Your task to perform on an android device: Empty the shopping cart on amazon. Search for razer naga on amazon, select the first entry, and add it to the cart. Image 0: 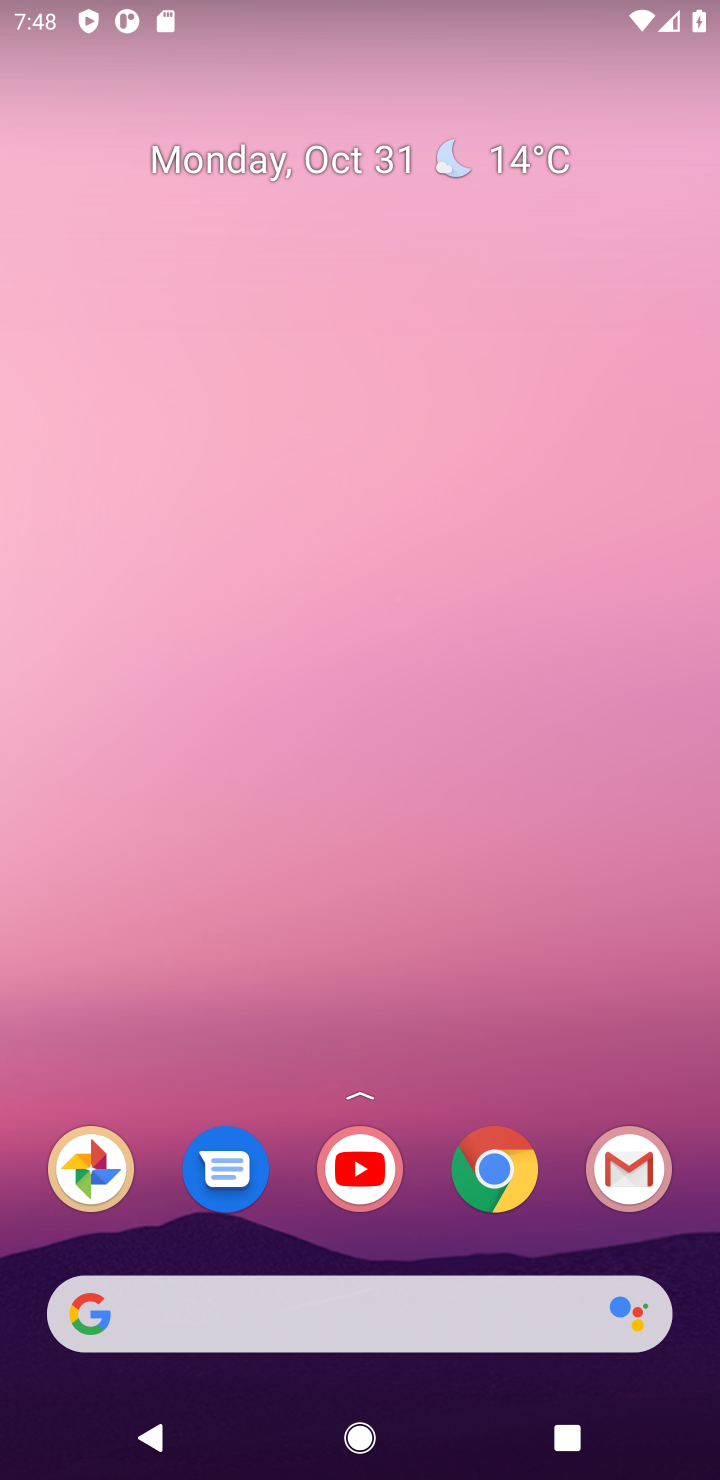
Step 0: drag from (189, 1180) to (217, 251)
Your task to perform on an android device: Empty the shopping cart on amazon. Search for razer naga on amazon, select the first entry, and add it to the cart. Image 1: 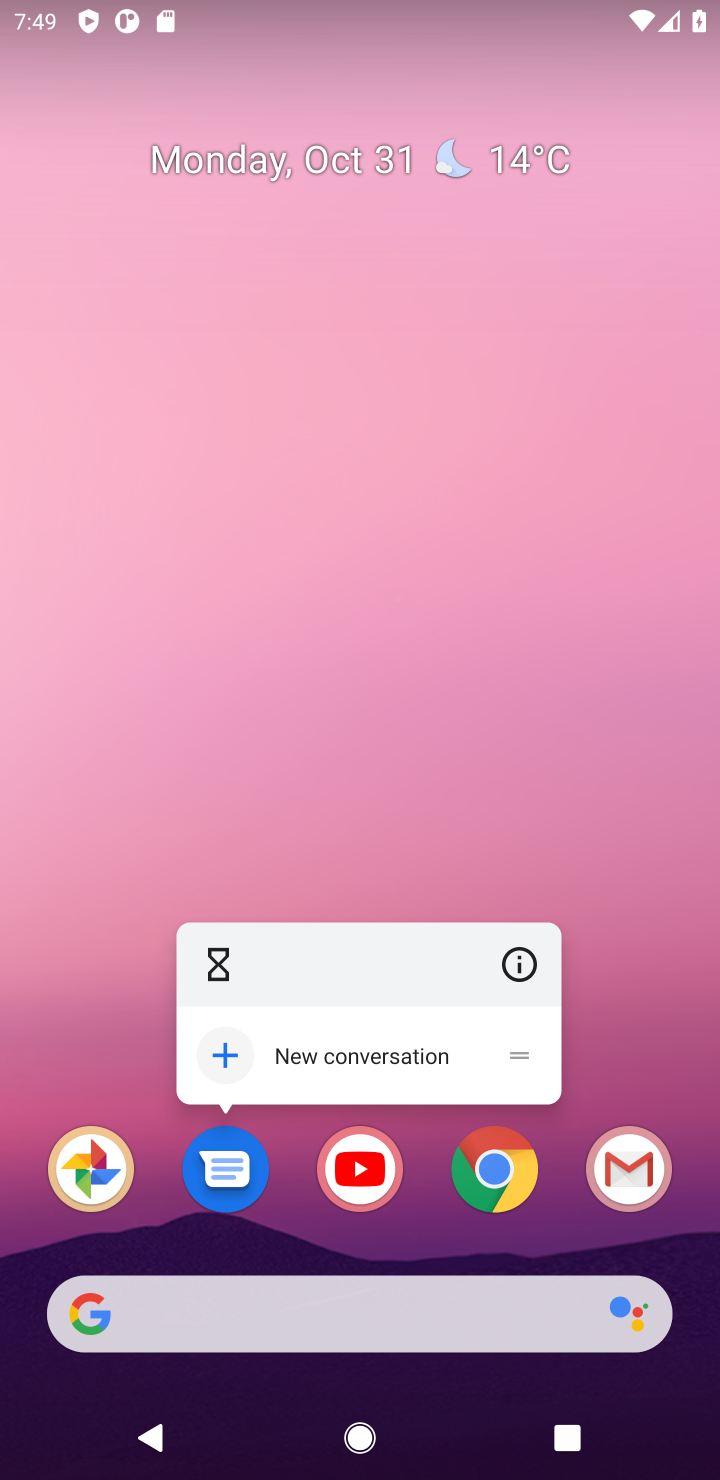
Step 1: click (419, 729)
Your task to perform on an android device: Empty the shopping cart on amazon. Search for razer naga on amazon, select the first entry, and add it to the cart. Image 2: 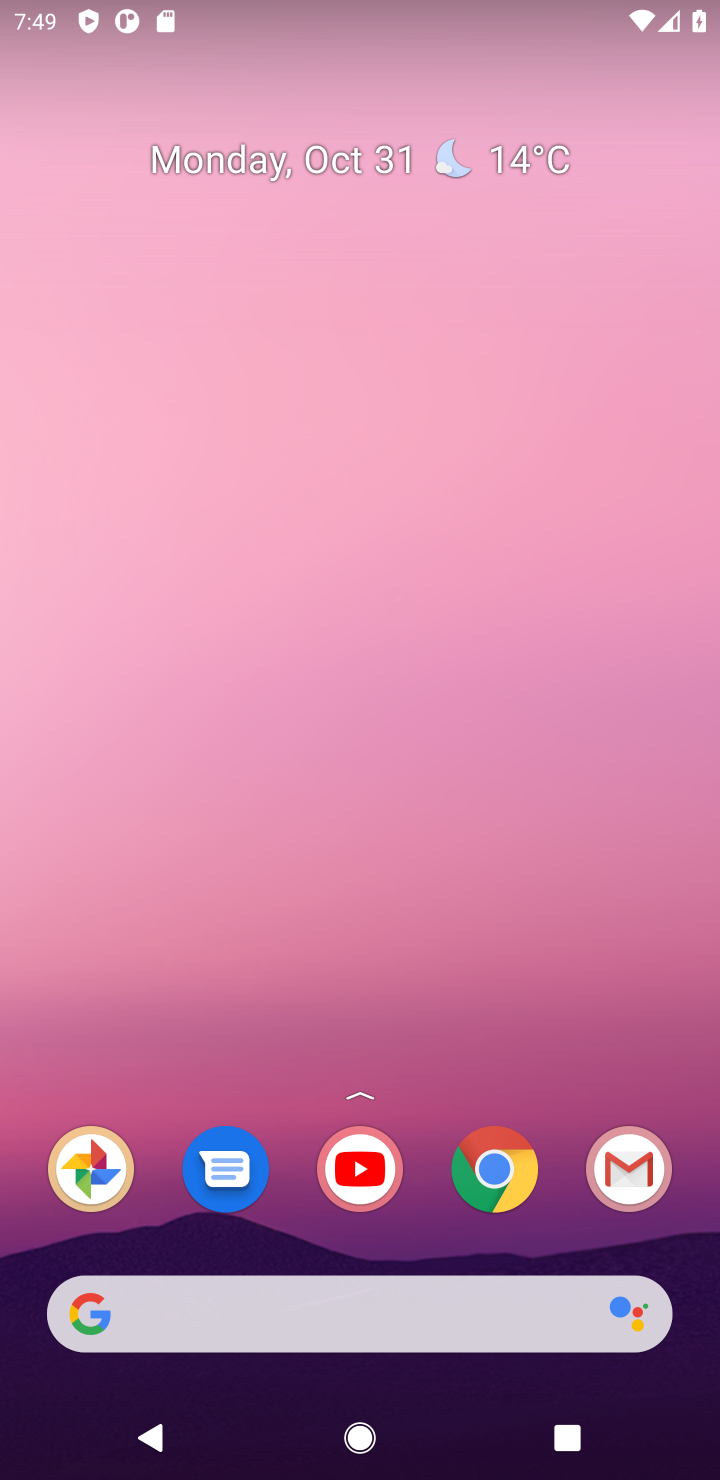
Step 2: drag from (366, 1320) to (419, 329)
Your task to perform on an android device: Empty the shopping cart on amazon. Search for razer naga on amazon, select the first entry, and add it to the cart. Image 3: 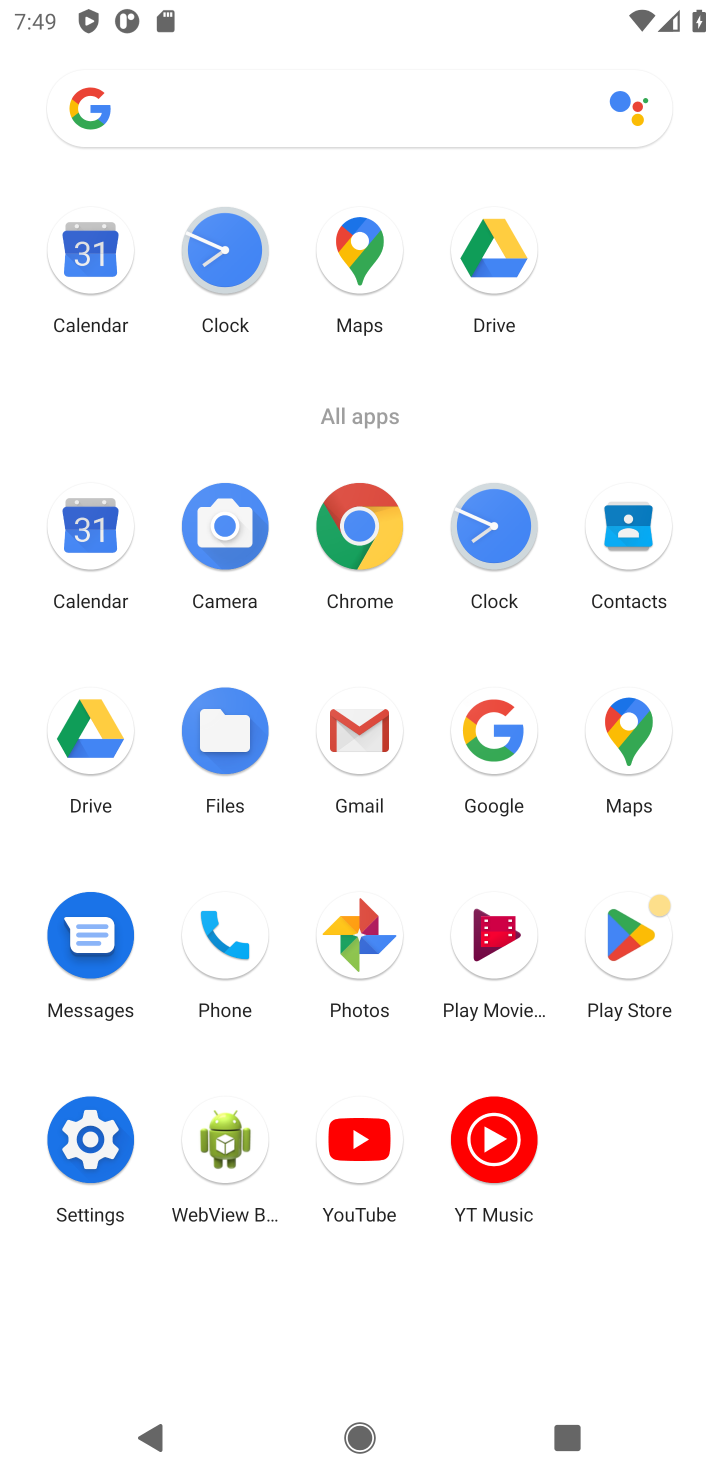
Step 3: click (480, 711)
Your task to perform on an android device: Empty the shopping cart on amazon. Search for razer naga on amazon, select the first entry, and add it to the cart. Image 4: 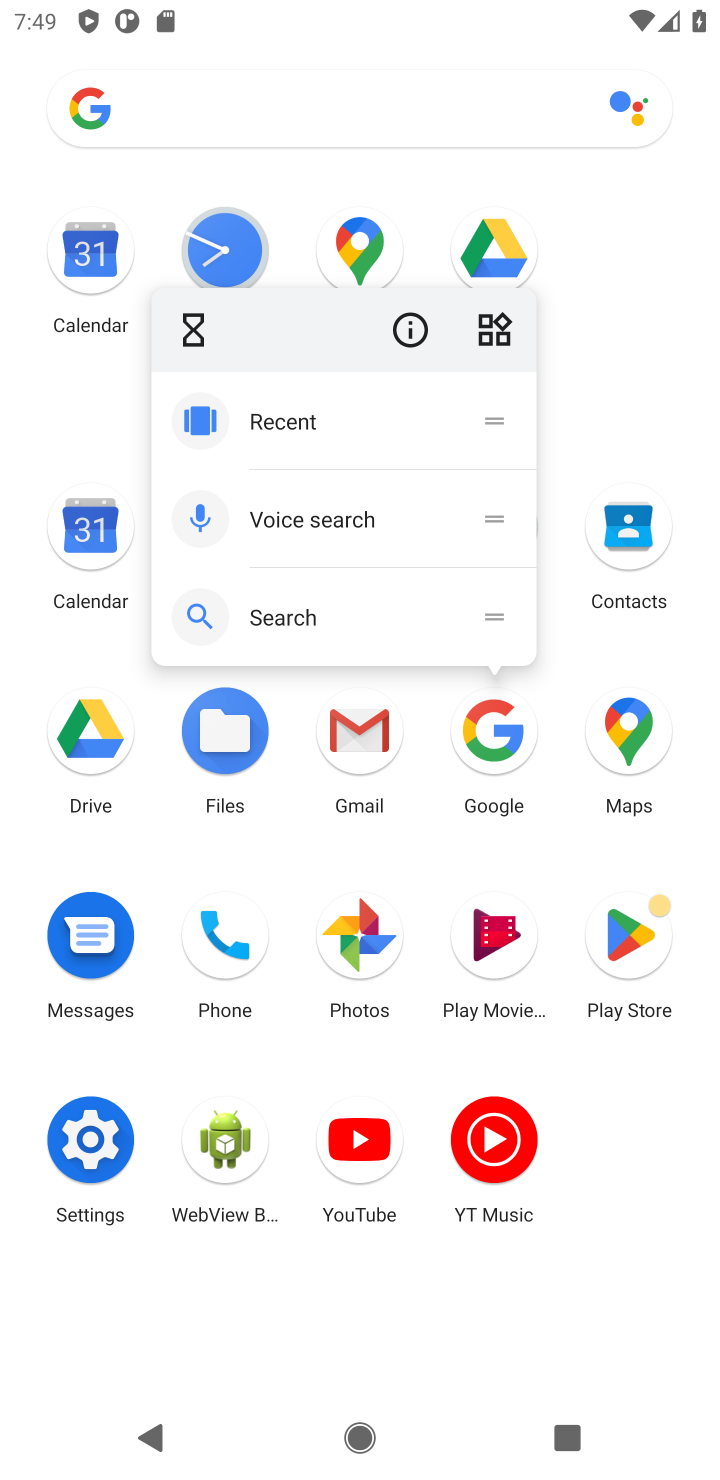
Step 4: click (504, 736)
Your task to perform on an android device: Empty the shopping cart on amazon. Search for razer naga on amazon, select the first entry, and add it to the cart. Image 5: 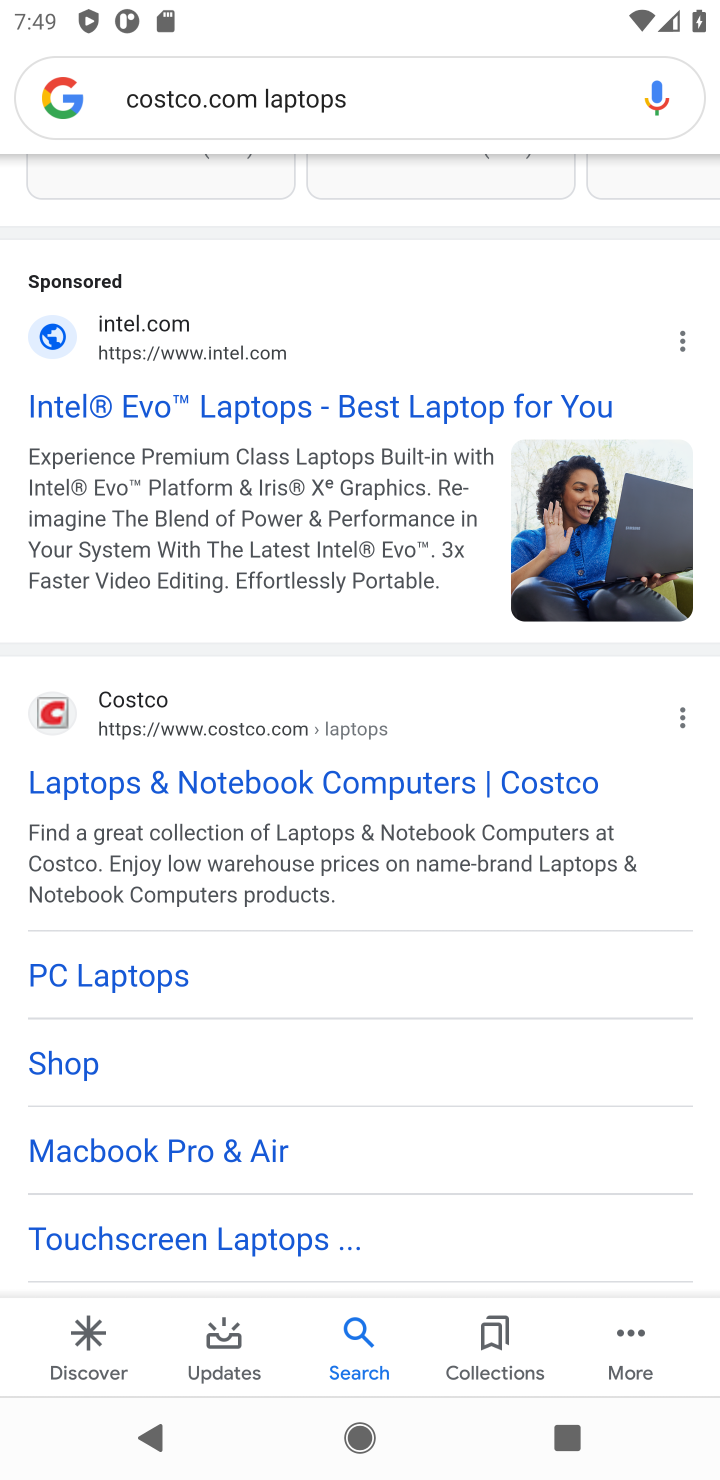
Step 5: click (354, 104)
Your task to perform on an android device: Empty the shopping cart on amazon. Search for razer naga on amazon, select the first entry, and add it to the cart. Image 6: 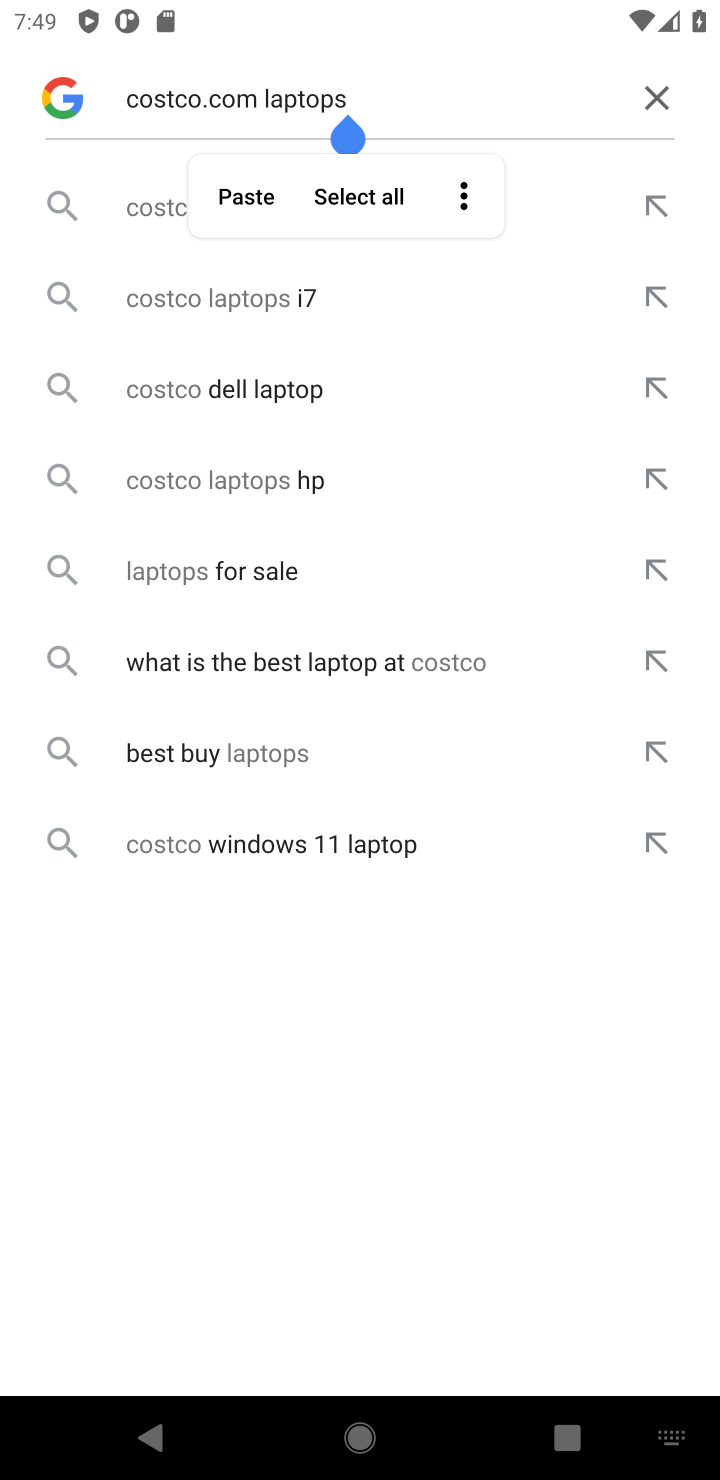
Step 6: click (664, 86)
Your task to perform on an android device: Empty the shopping cart on amazon. Search for razer naga on amazon, select the first entry, and add it to the cart. Image 7: 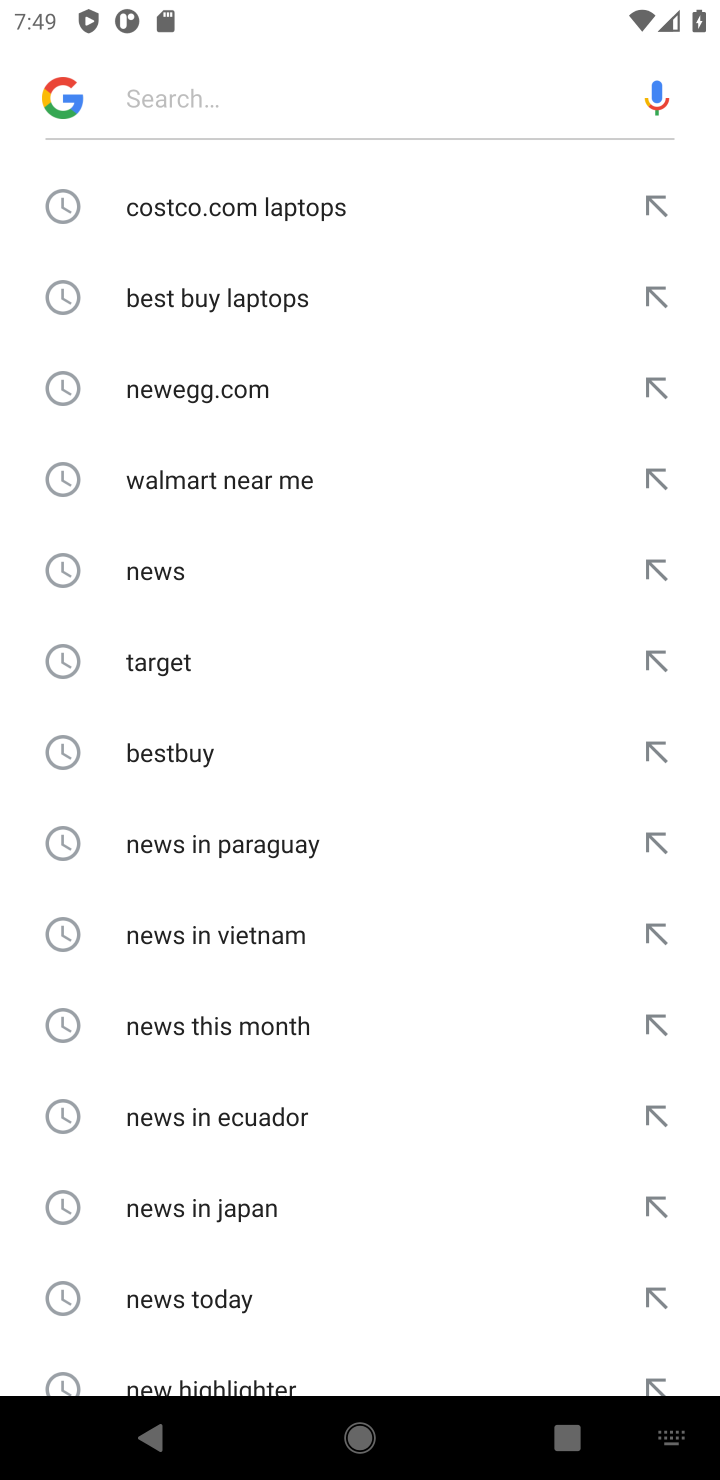
Step 7: click (141, 70)
Your task to perform on an android device: Empty the shopping cart on amazon. Search for razer naga on amazon, select the first entry, and add it to the cart. Image 8: 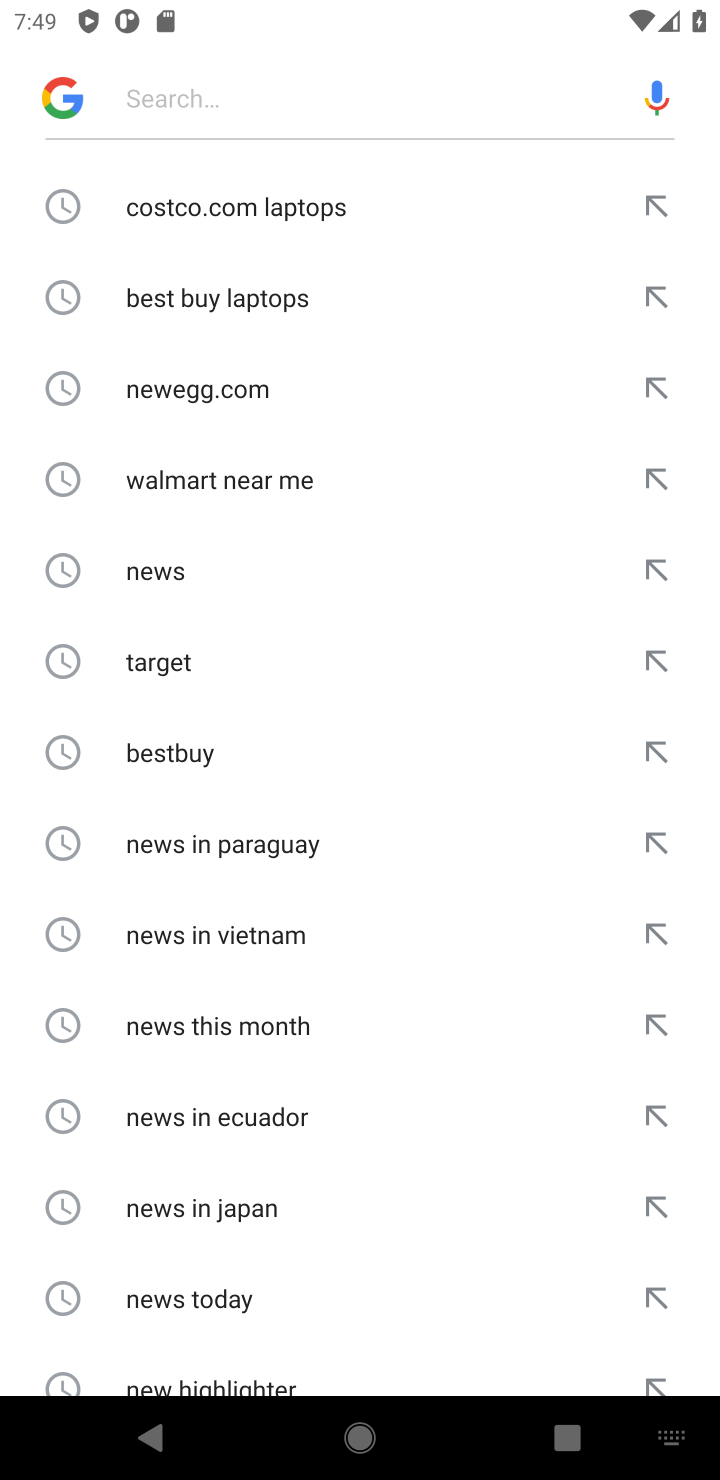
Step 8: type "amazon "
Your task to perform on an android device: Empty the shopping cart on amazon. Search for razer naga on amazon, select the first entry, and add it to the cart. Image 9: 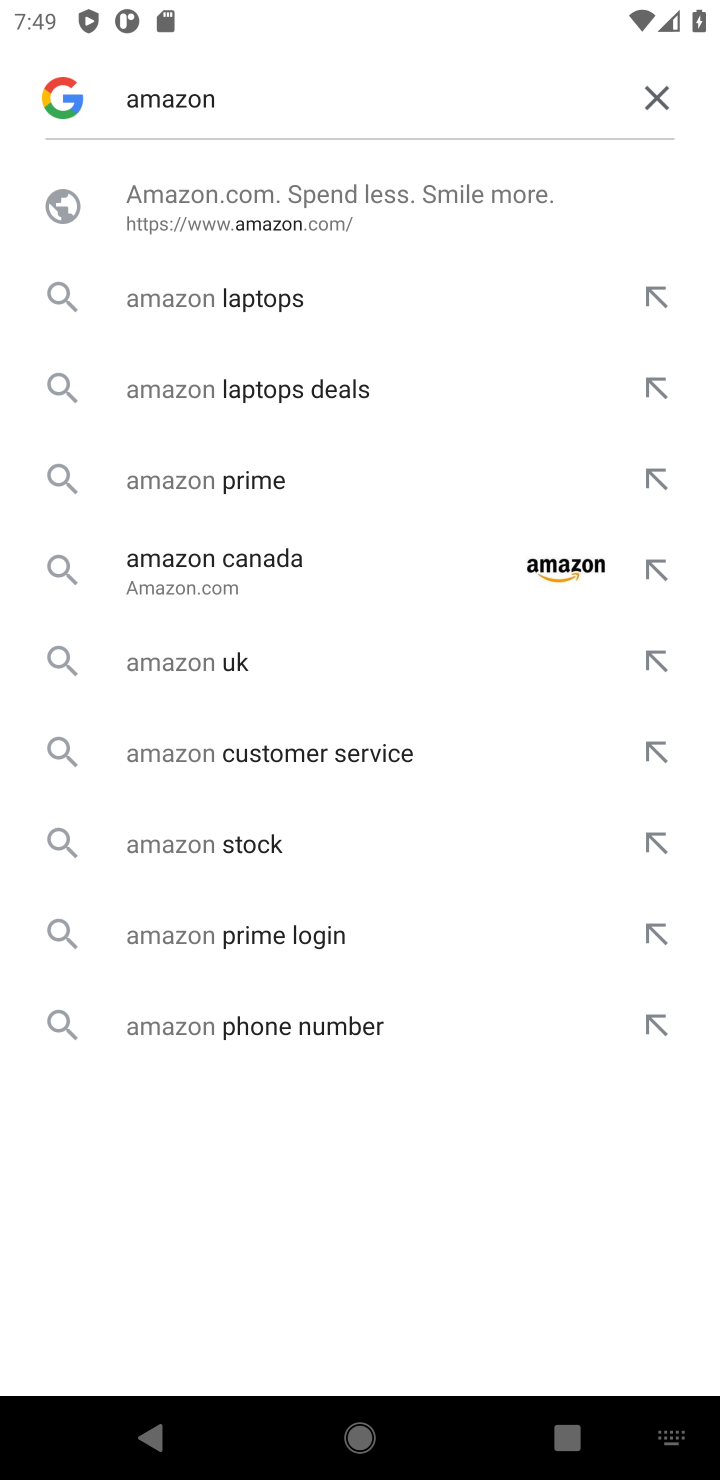
Step 9: click (251, 216)
Your task to perform on an android device: Empty the shopping cart on amazon. Search for razer naga on amazon, select the first entry, and add it to the cart. Image 10: 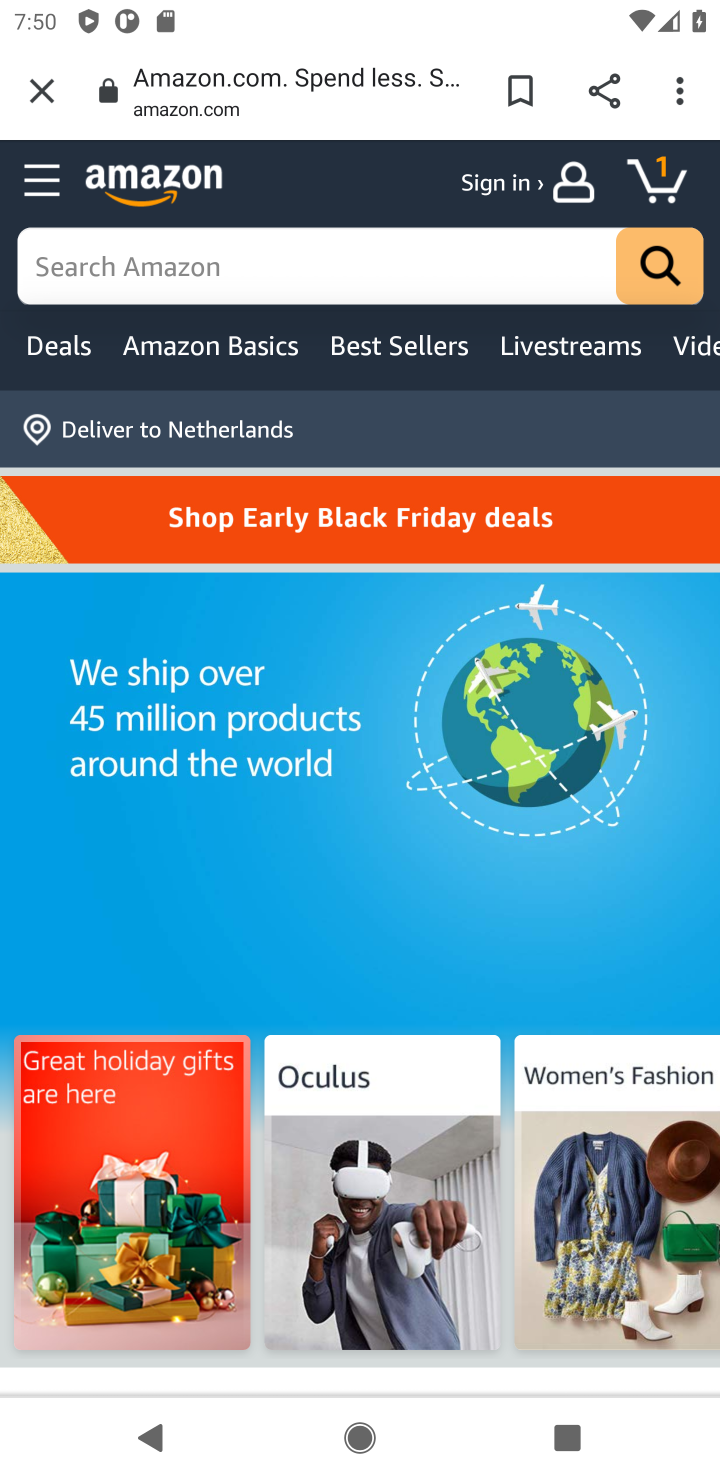
Step 10: click (350, 263)
Your task to perform on an android device: Empty the shopping cart on amazon. Search for razer naga on amazon, select the first entry, and add it to the cart. Image 11: 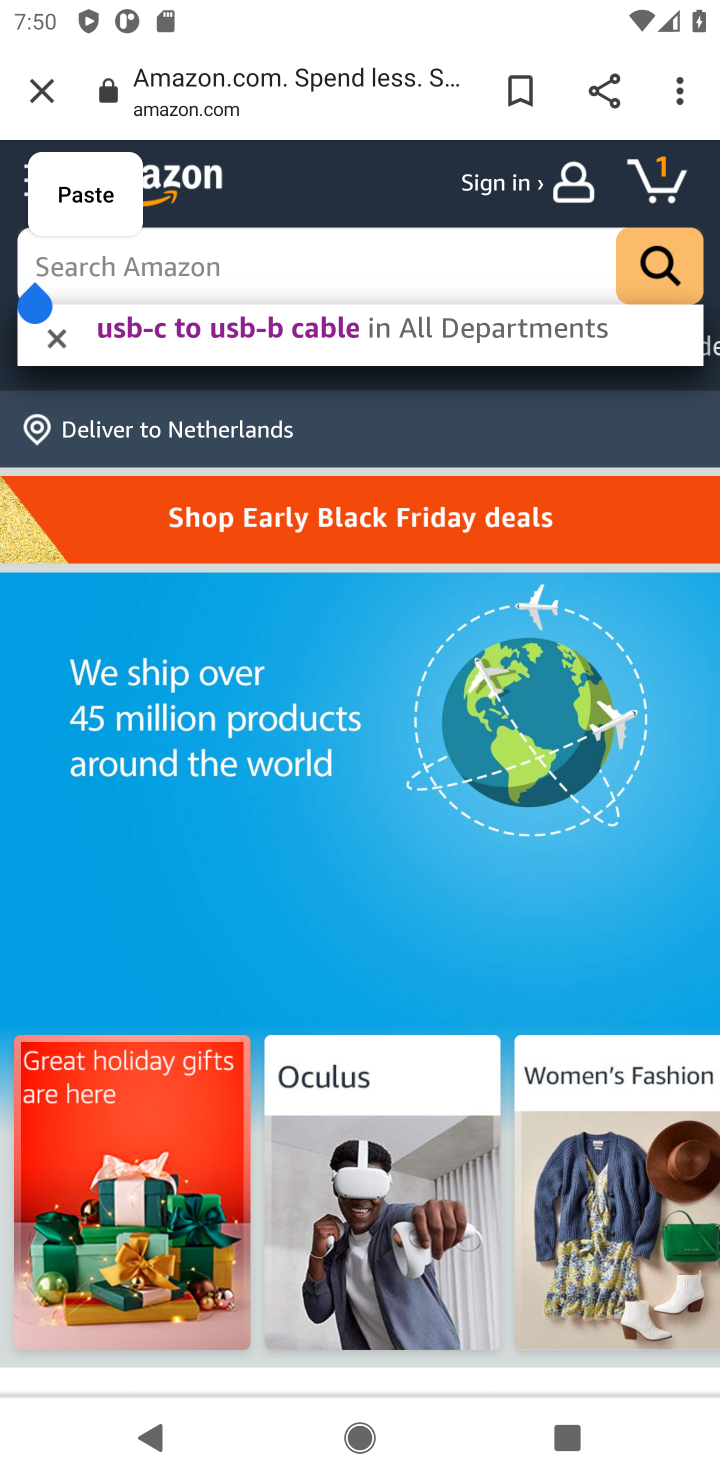
Step 11: click (320, 246)
Your task to perform on an android device: Empty the shopping cart on amazon. Search for razer naga on amazon, select the first entry, and add it to the cart. Image 12: 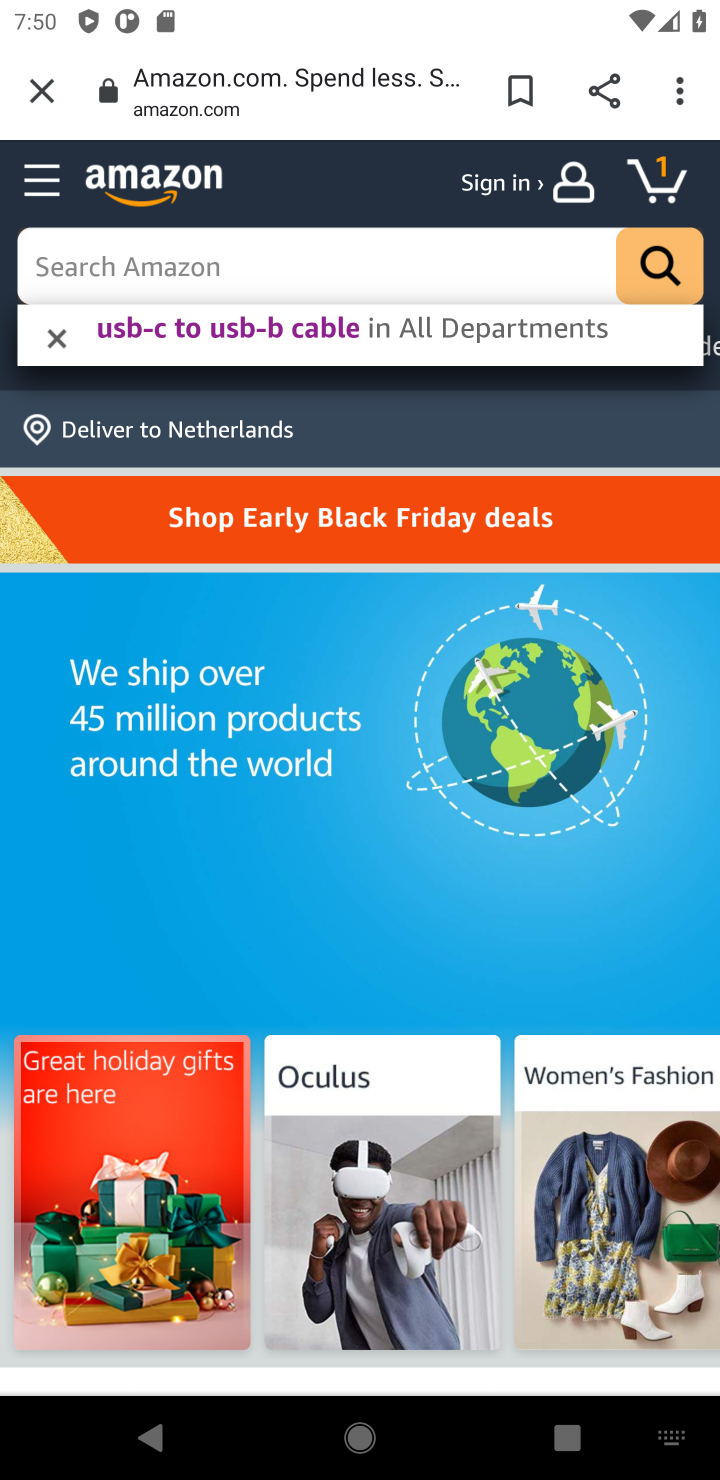
Step 12: type "razer naga "
Your task to perform on an android device: Empty the shopping cart on amazon. Search for razer naga on amazon, select the first entry, and add it to the cart. Image 13: 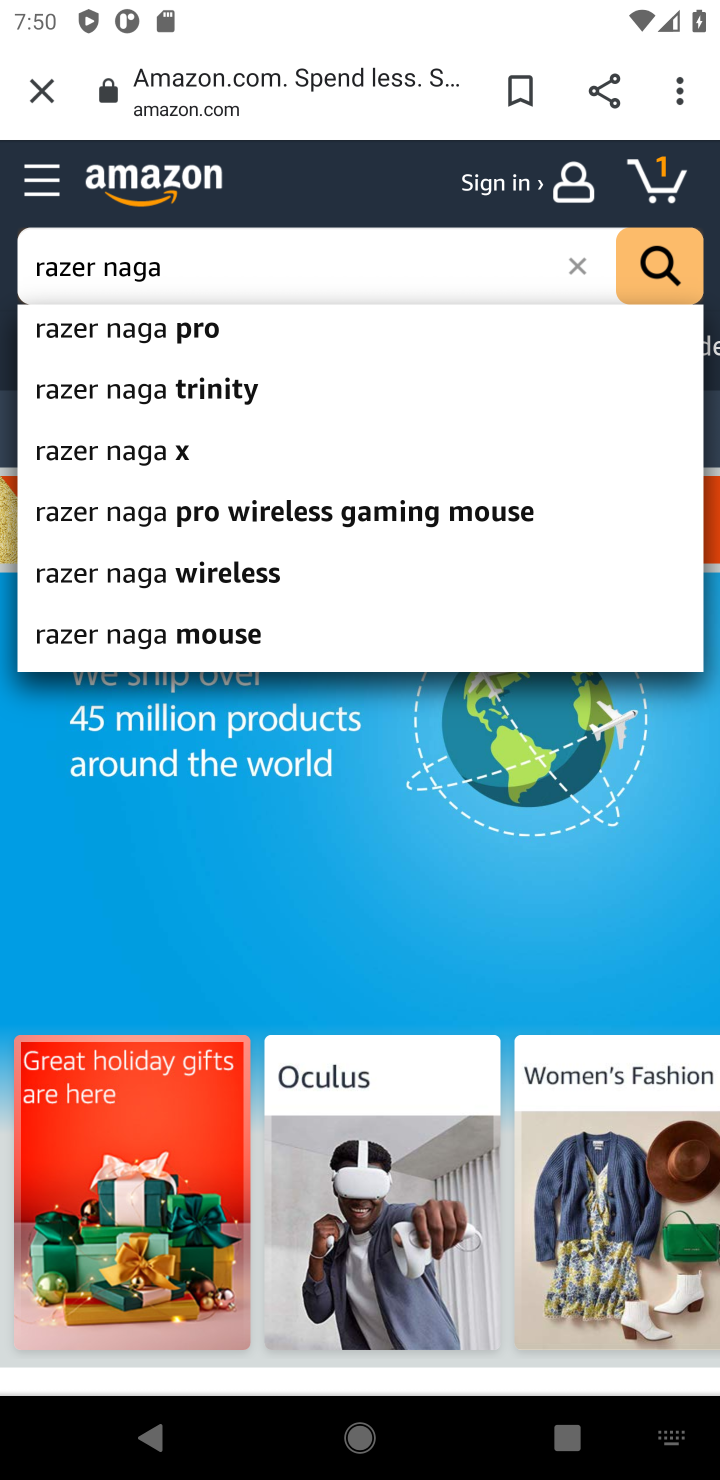
Step 13: click (106, 463)
Your task to perform on an android device: Empty the shopping cart on amazon. Search for razer naga on amazon, select the first entry, and add it to the cart. Image 14: 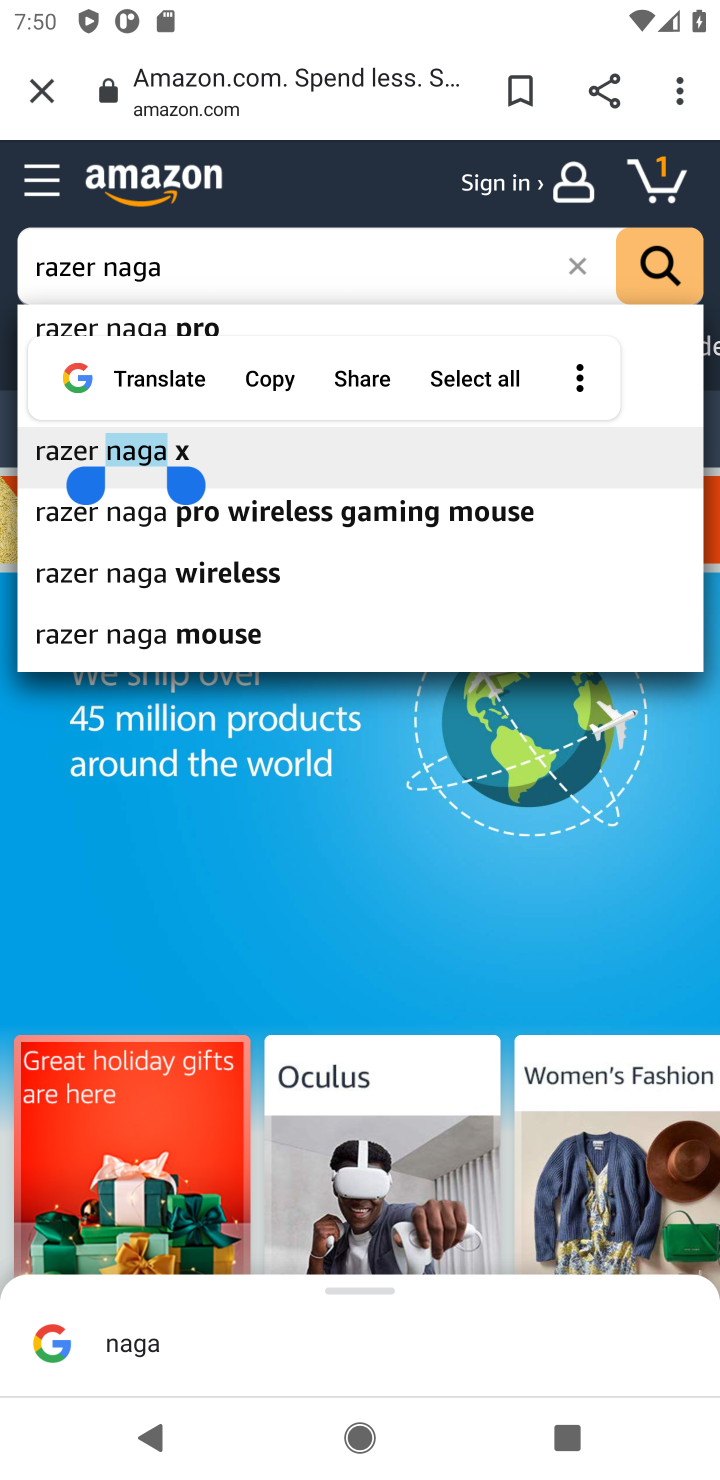
Step 14: click (237, 450)
Your task to perform on an android device: Empty the shopping cart on amazon. Search for razer naga on amazon, select the first entry, and add it to the cart. Image 15: 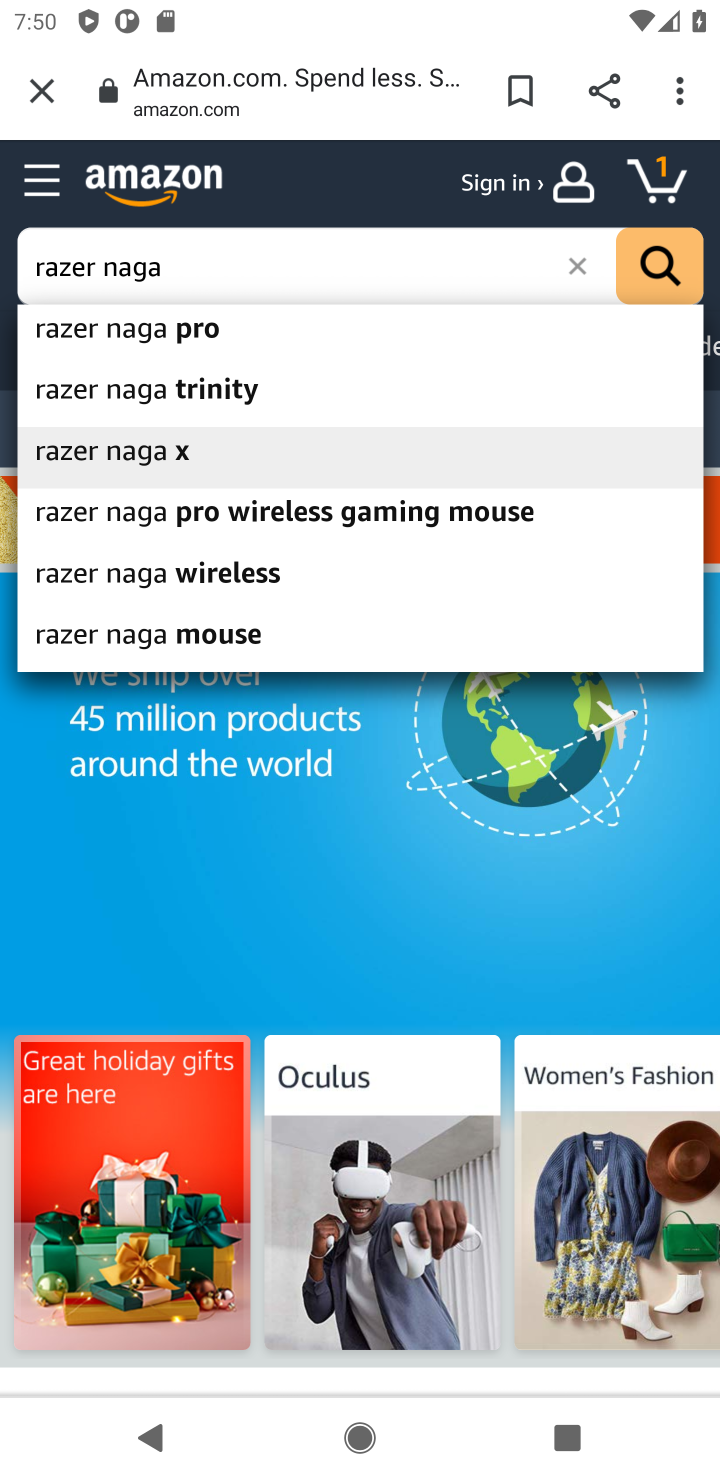
Step 15: click (438, 457)
Your task to perform on an android device: Empty the shopping cart on amazon. Search for razer naga on amazon, select the first entry, and add it to the cart. Image 16: 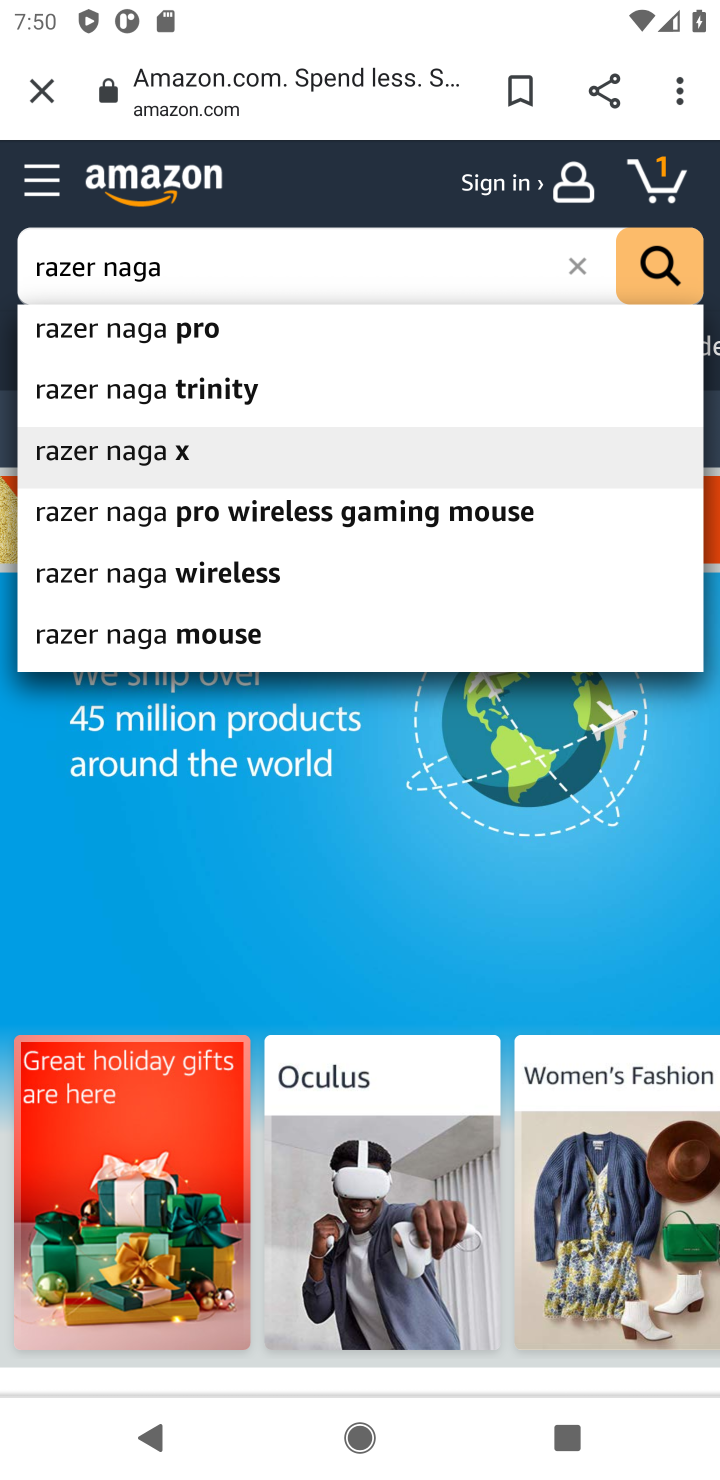
Step 16: click (256, 332)
Your task to perform on an android device: Empty the shopping cart on amazon. Search for razer naga on amazon, select the first entry, and add it to the cart. Image 17: 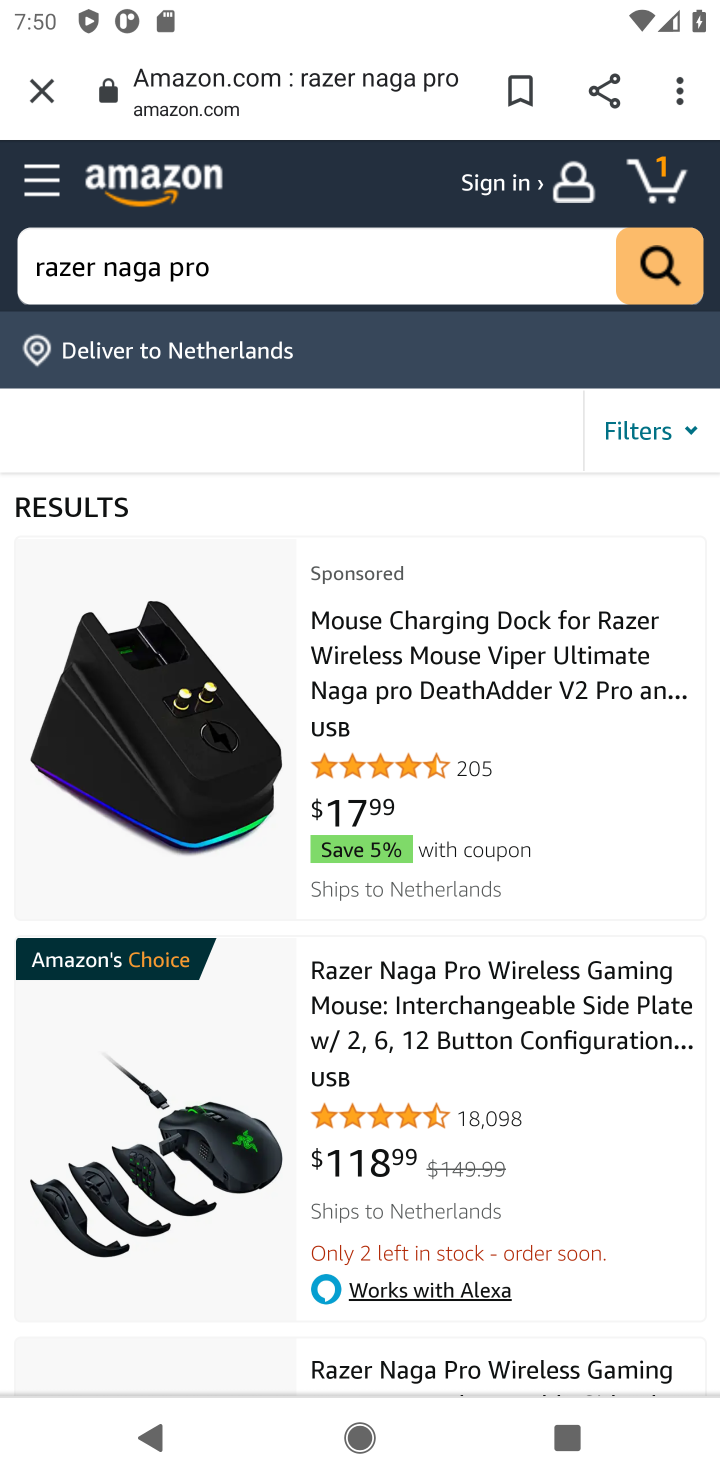
Step 17: click (457, 1164)
Your task to perform on an android device: Empty the shopping cart on amazon. Search for razer naga on amazon, select the first entry, and add it to the cart. Image 18: 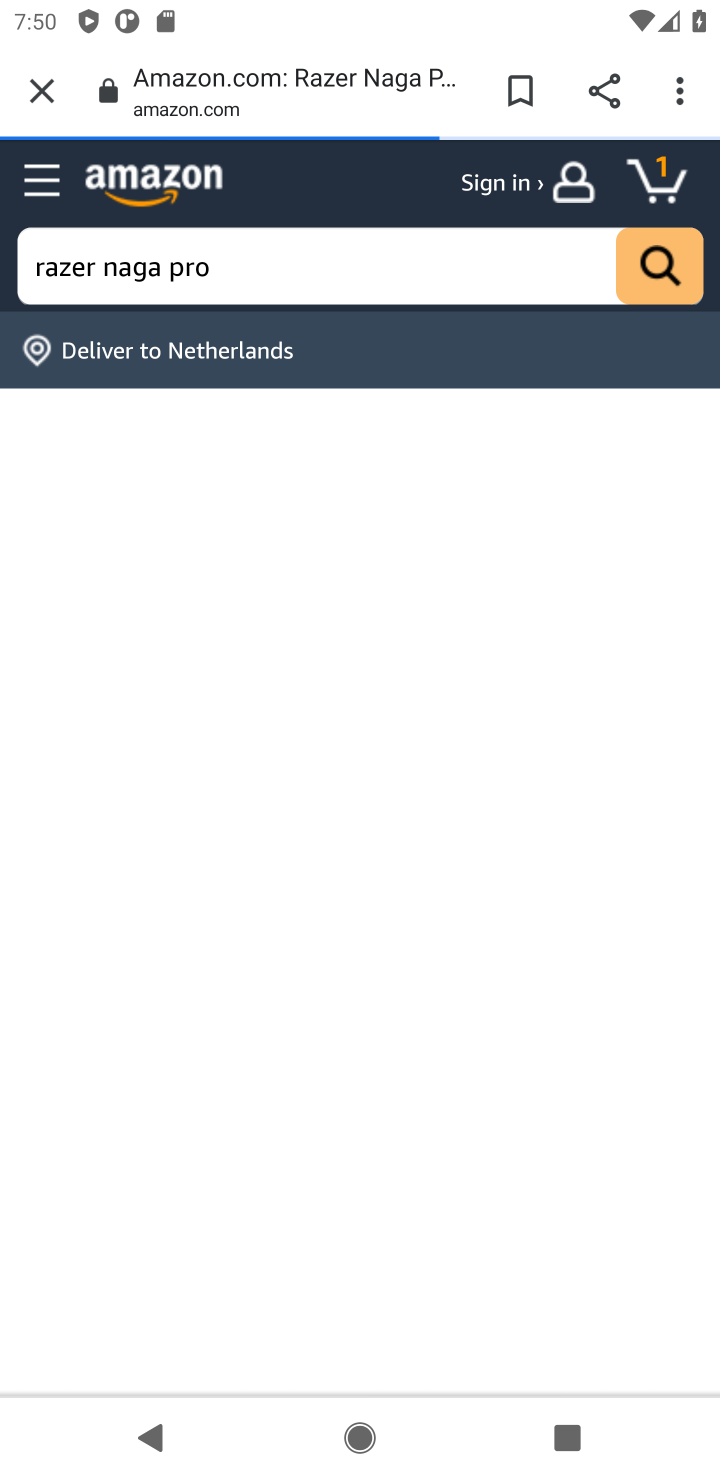
Step 18: click (479, 1019)
Your task to perform on an android device: Empty the shopping cart on amazon. Search for razer naga on amazon, select the first entry, and add it to the cart. Image 19: 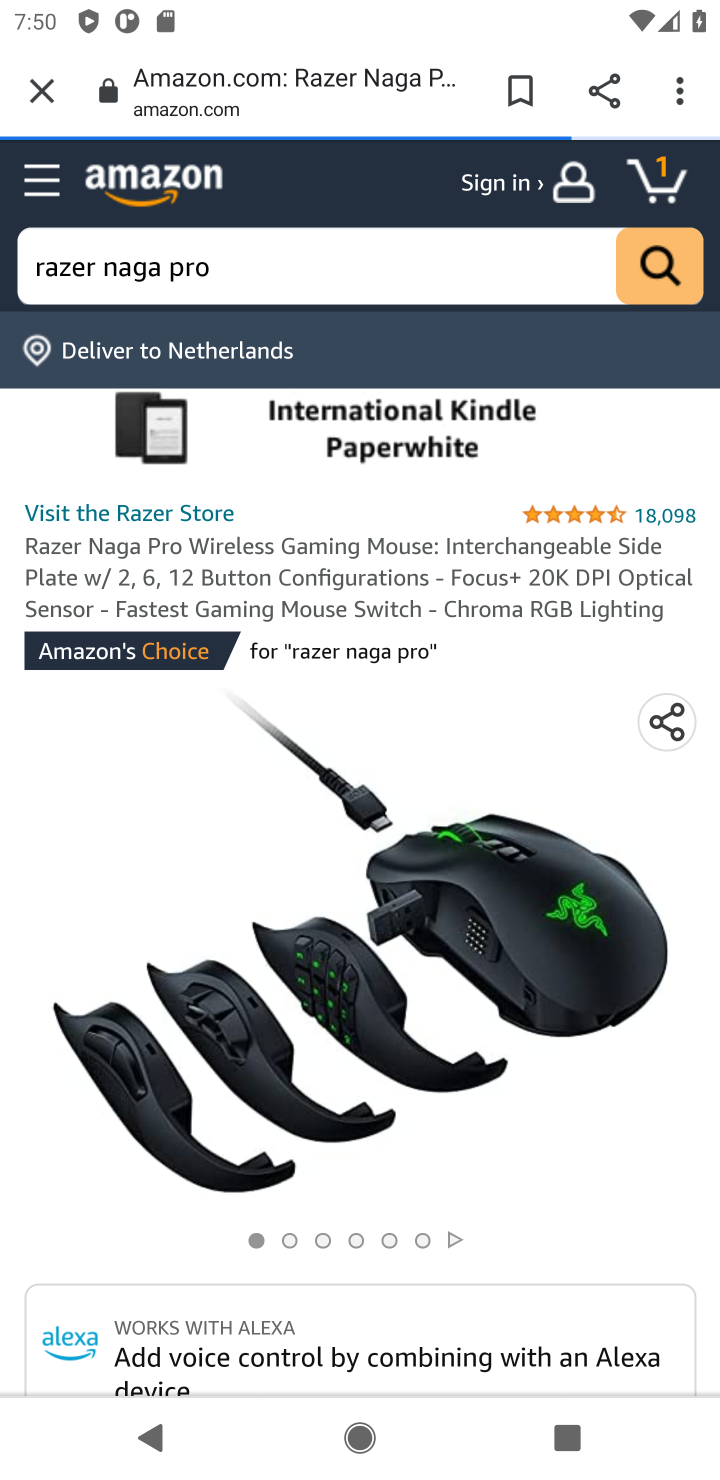
Step 19: drag from (485, 1231) to (528, 767)
Your task to perform on an android device: Empty the shopping cart on amazon. Search for razer naga on amazon, select the first entry, and add it to the cart. Image 20: 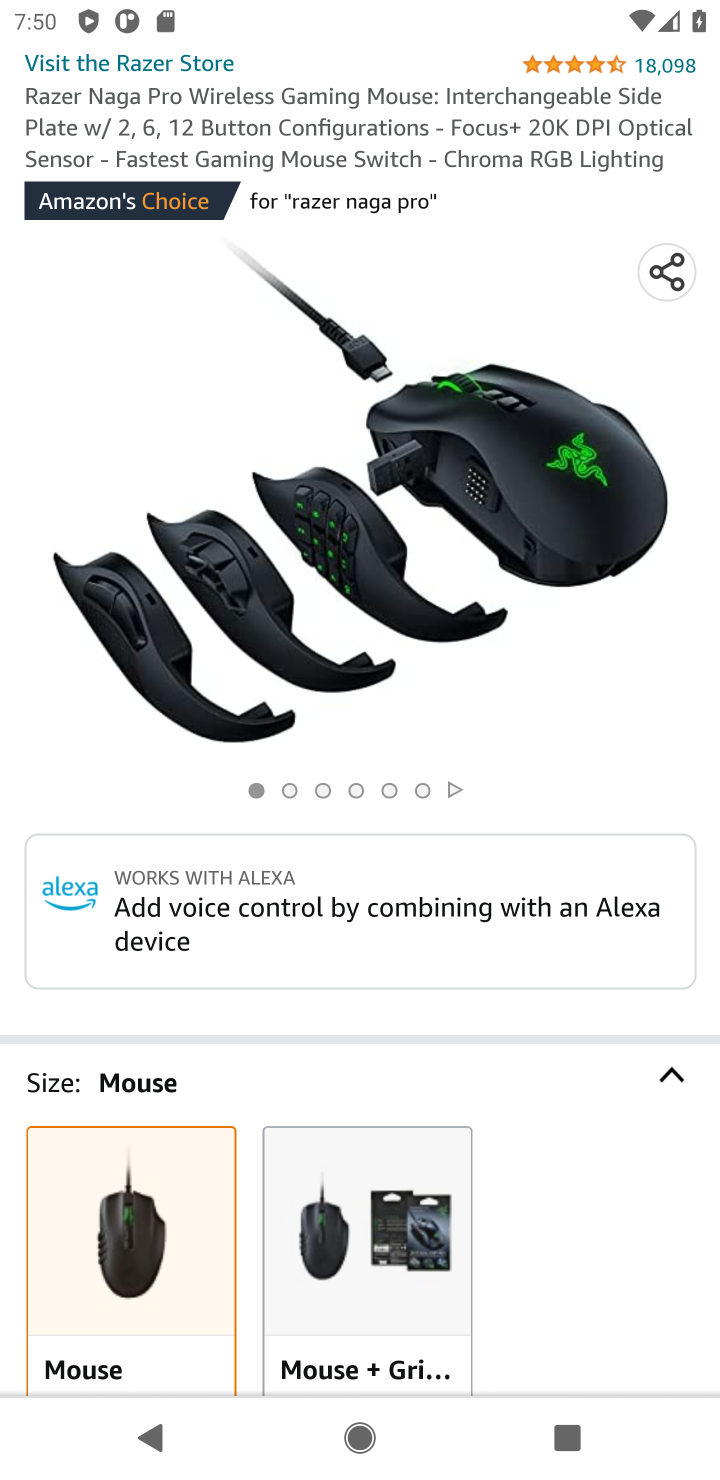
Step 20: drag from (508, 1183) to (513, 301)
Your task to perform on an android device: Empty the shopping cart on amazon. Search for razer naga on amazon, select the first entry, and add it to the cart. Image 21: 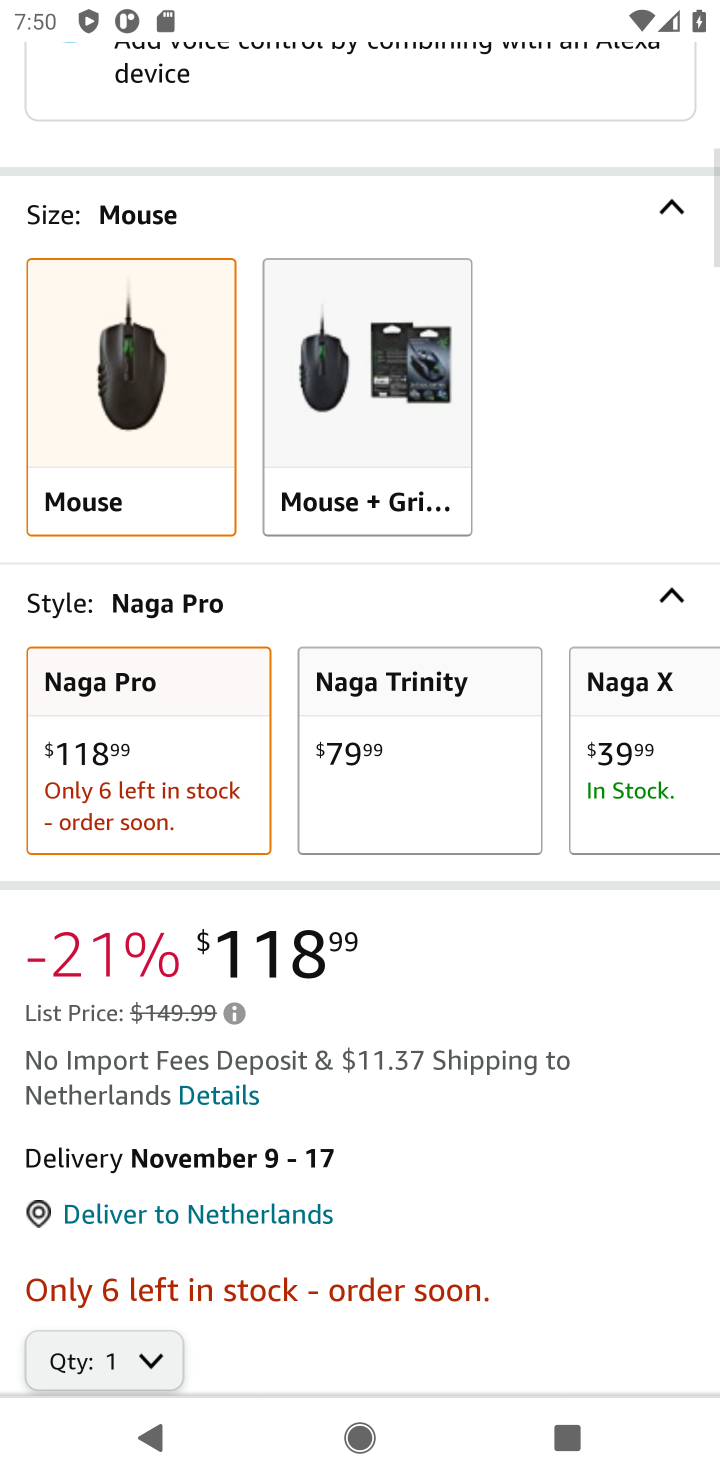
Step 21: drag from (424, 1024) to (434, 343)
Your task to perform on an android device: Empty the shopping cart on amazon. Search for razer naga on amazon, select the first entry, and add it to the cart. Image 22: 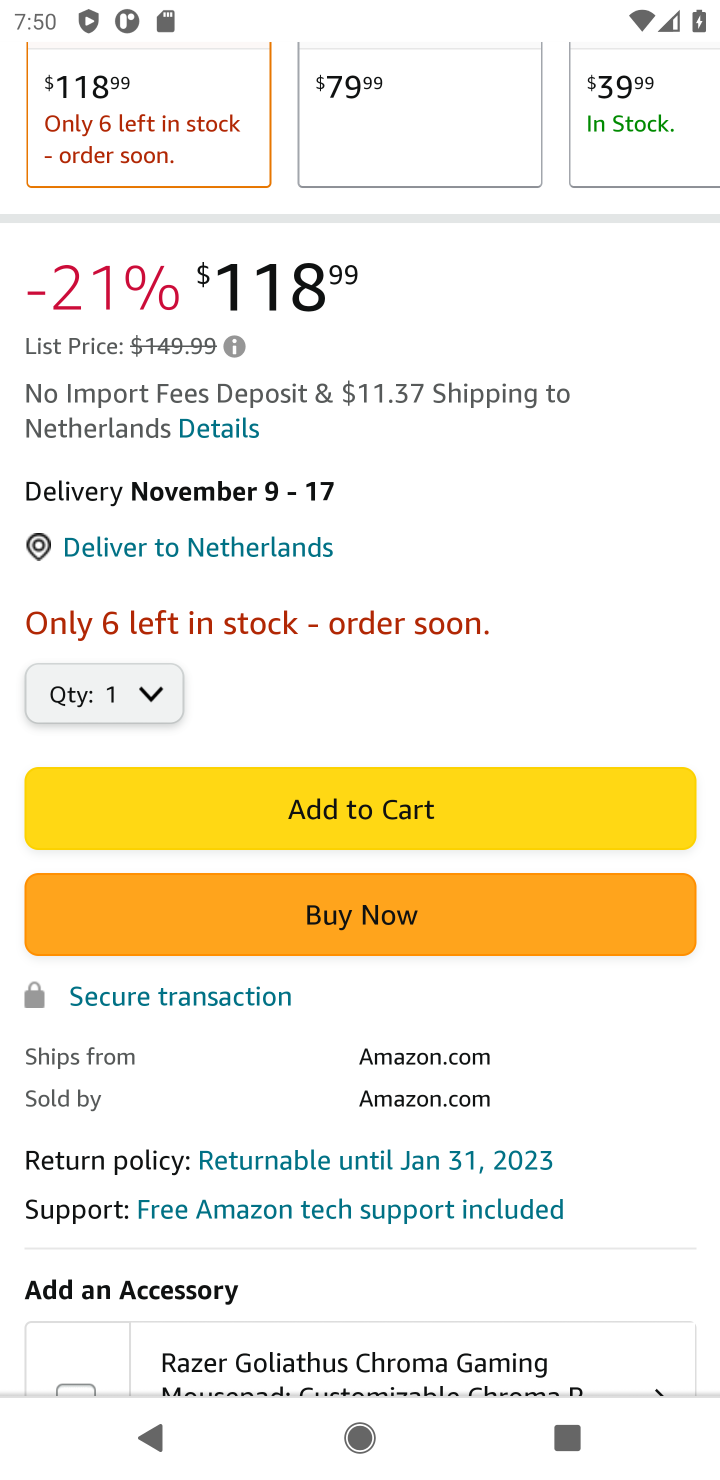
Step 22: click (356, 805)
Your task to perform on an android device: Empty the shopping cart on amazon. Search for razer naga on amazon, select the first entry, and add it to the cart. Image 23: 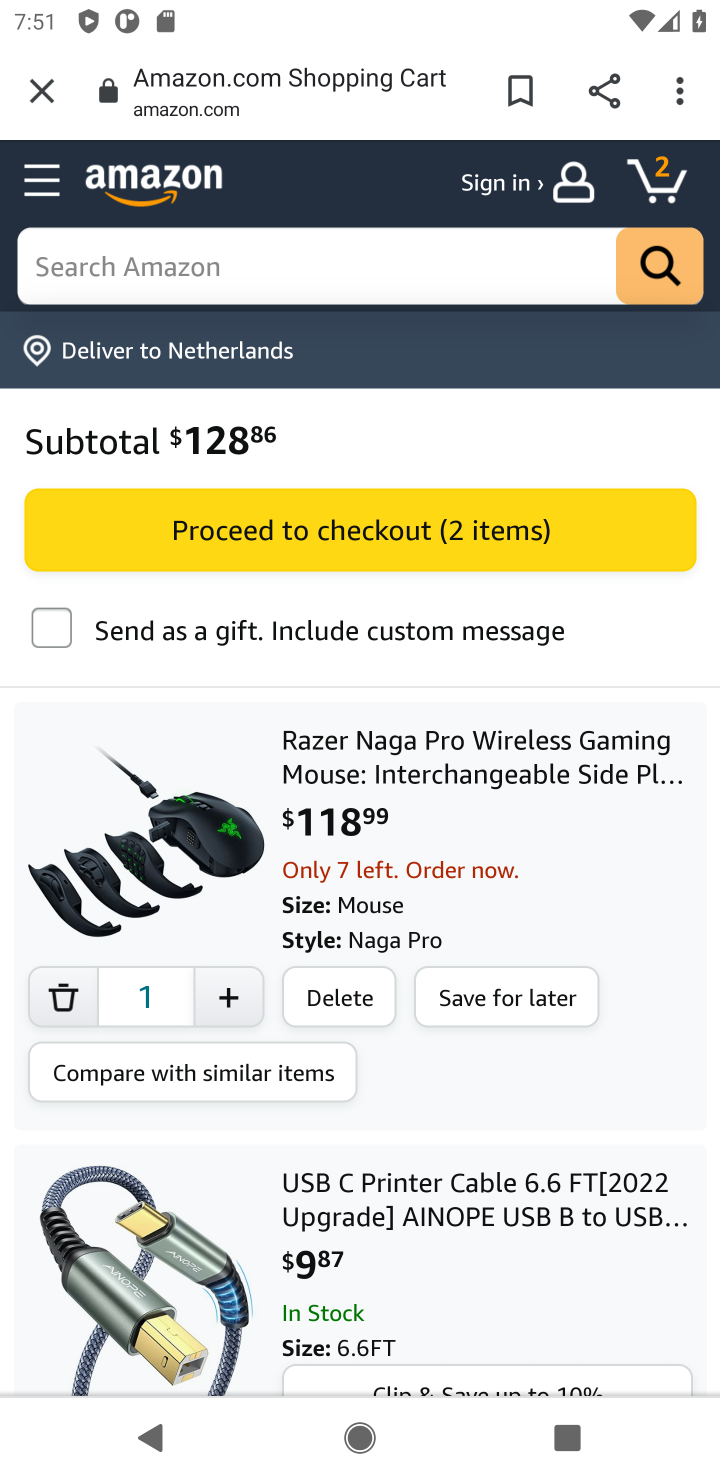
Step 23: task complete